Your task to perform on an android device: Go to Amazon Image 0: 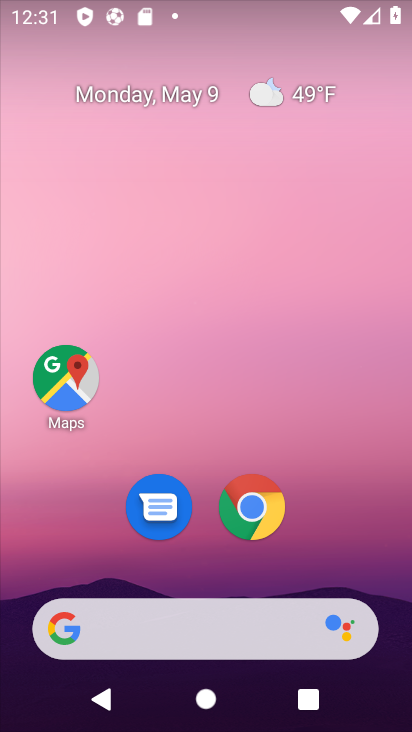
Step 0: click (234, 545)
Your task to perform on an android device: Go to Amazon Image 1: 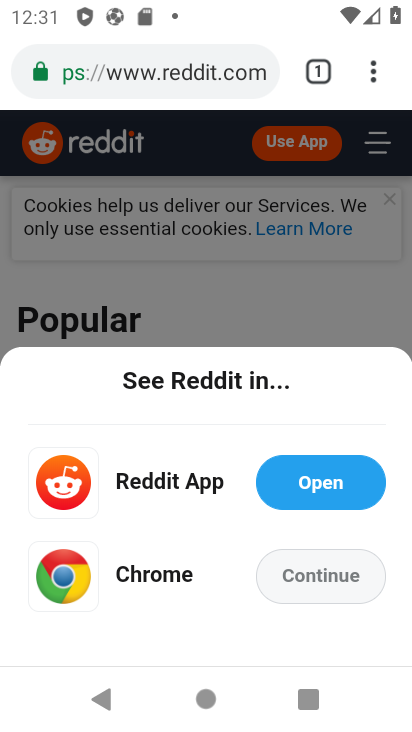
Step 1: click (323, 74)
Your task to perform on an android device: Go to Amazon Image 2: 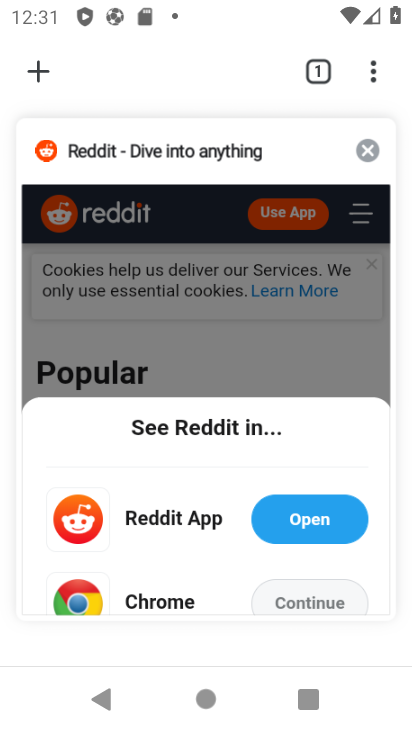
Step 2: click (357, 160)
Your task to perform on an android device: Go to Amazon Image 3: 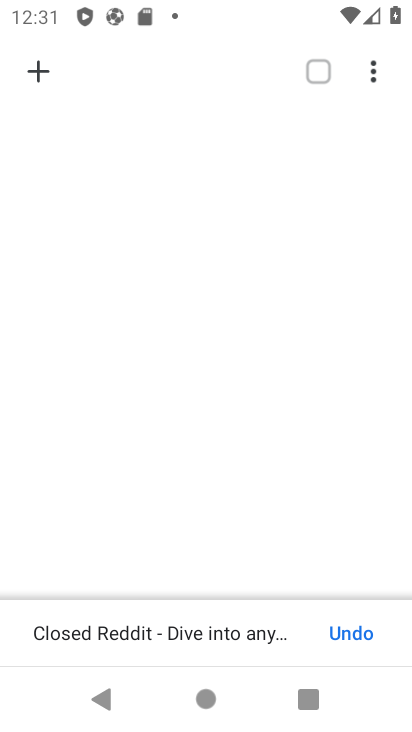
Step 3: click (46, 73)
Your task to perform on an android device: Go to Amazon Image 4: 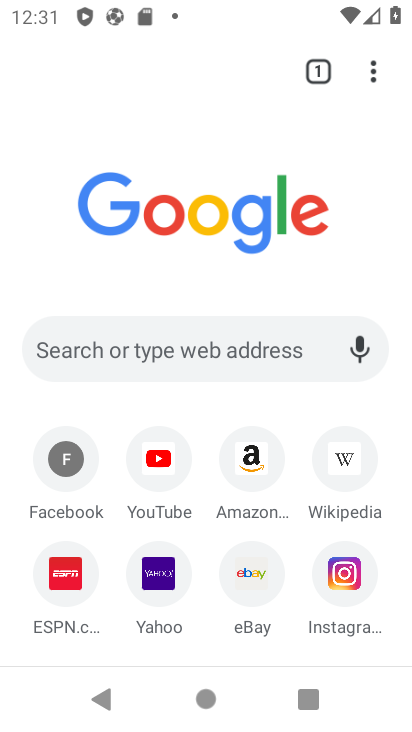
Step 4: click (262, 465)
Your task to perform on an android device: Go to Amazon Image 5: 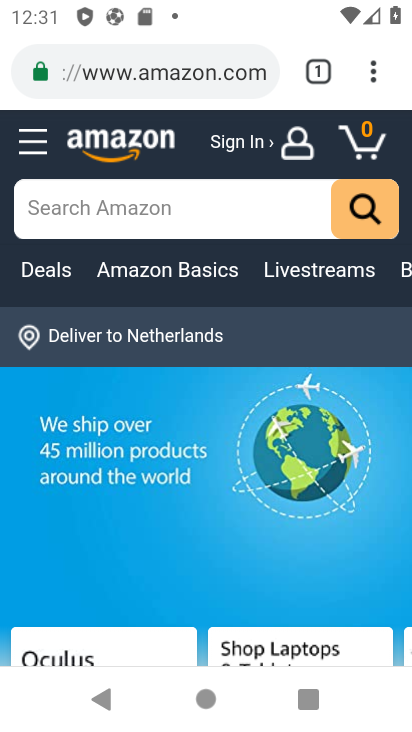
Step 5: task complete